Your task to perform on an android device: Open calendar and show me the second week of next month Image 0: 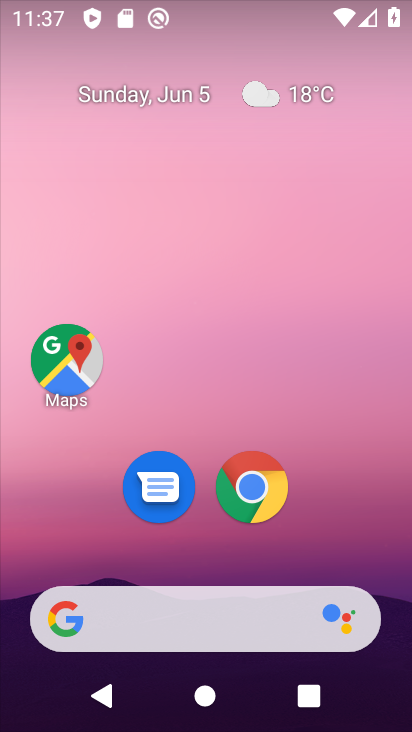
Step 0: drag from (361, 475) to (372, 89)
Your task to perform on an android device: Open calendar and show me the second week of next month Image 1: 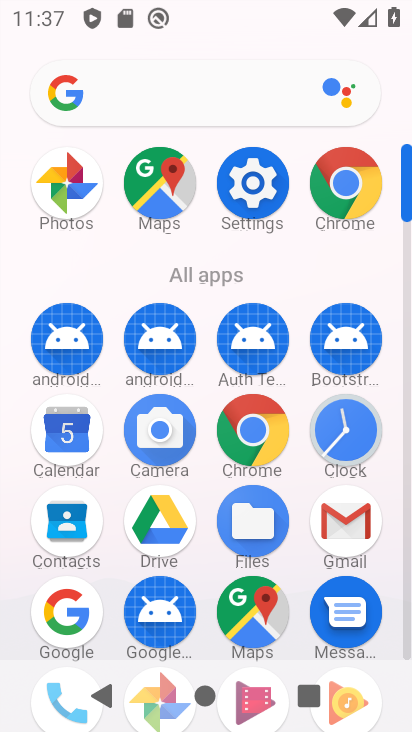
Step 1: click (91, 437)
Your task to perform on an android device: Open calendar and show me the second week of next month Image 2: 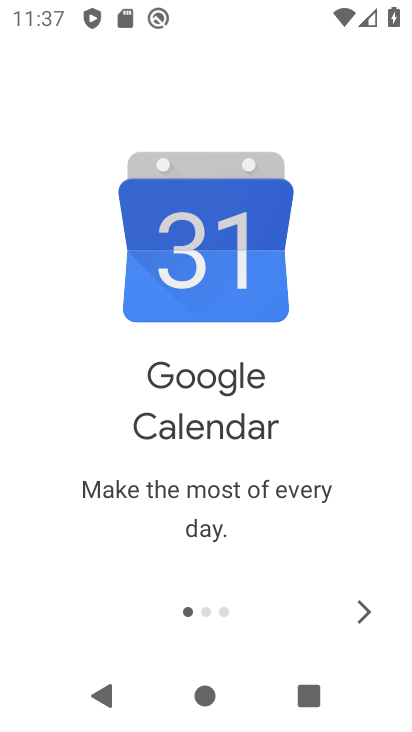
Step 2: click (367, 606)
Your task to perform on an android device: Open calendar and show me the second week of next month Image 3: 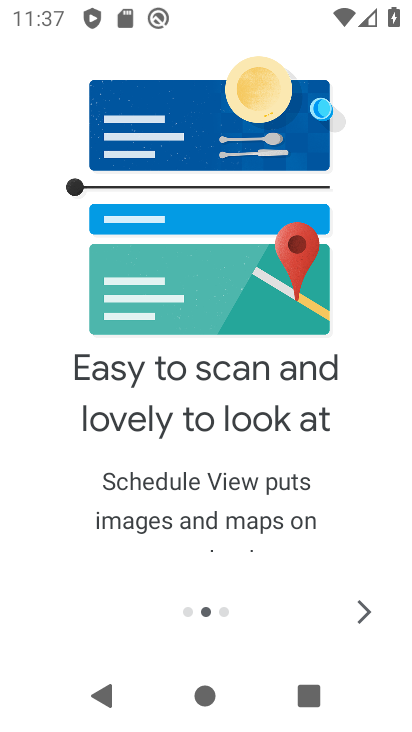
Step 3: click (367, 606)
Your task to perform on an android device: Open calendar and show me the second week of next month Image 4: 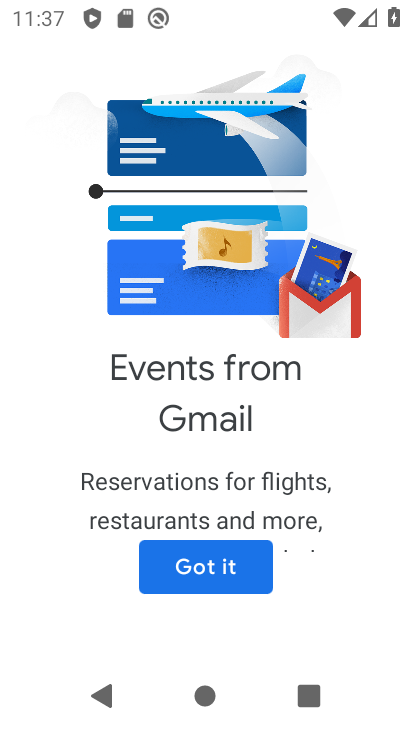
Step 4: click (230, 572)
Your task to perform on an android device: Open calendar and show me the second week of next month Image 5: 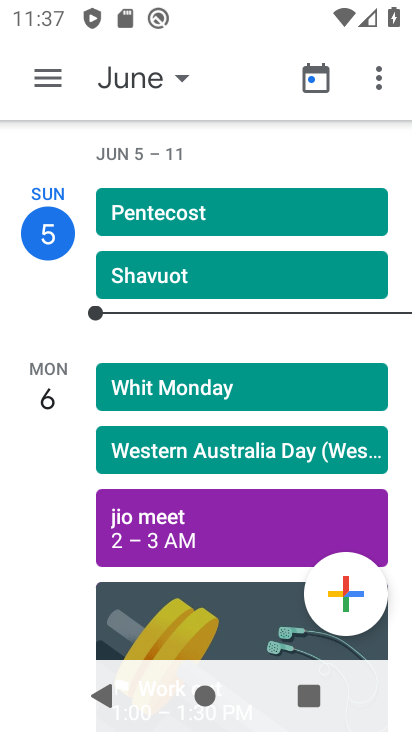
Step 5: click (157, 86)
Your task to perform on an android device: Open calendar and show me the second week of next month Image 6: 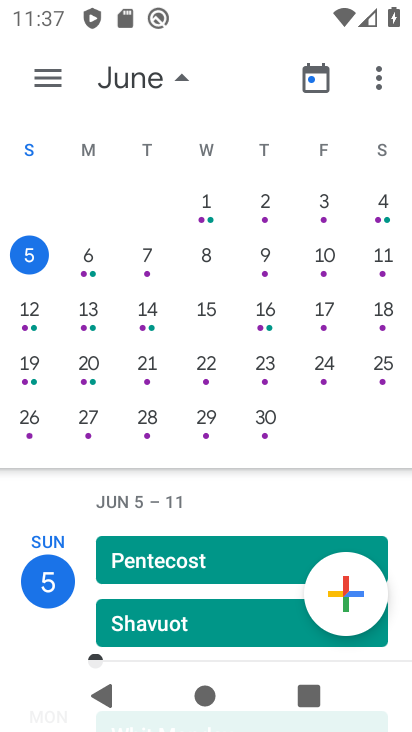
Step 6: drag from (370, 259) to (45, 249)
Your task to perform on an android device: Open calendar and show me the second week of next month Image 7: 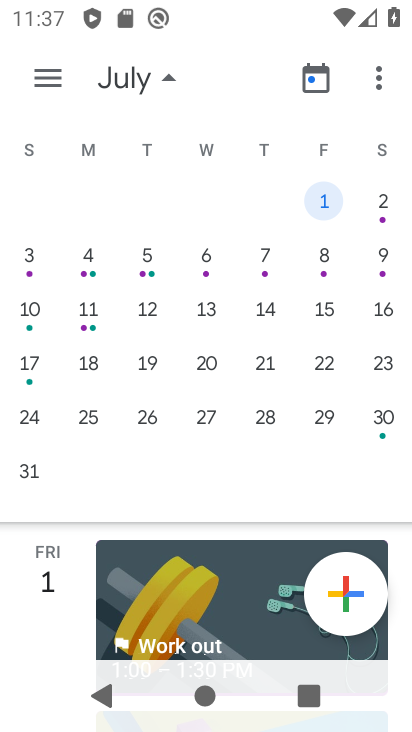
Step 7: click (28, 265)
Your task to perform on an android device: Open calendar and show me the second week of next month Image 8: 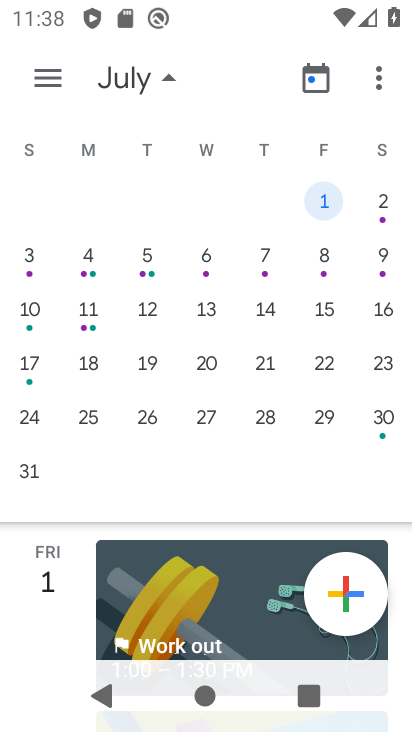
Step 8: click (42, 253)
Your task to perform on an android device: Open calendar and show me the second week of next month Image 9: 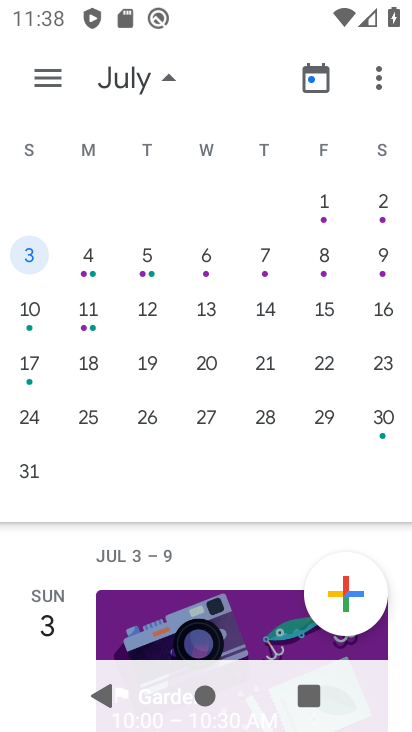
Step 9: task complete